Your task to perform on an android device: find snoozed emails in the gmail app Image 0: 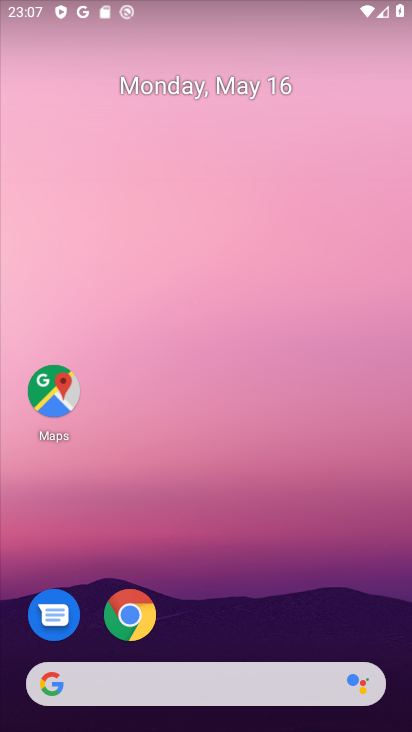
Step 0: drag from (174, 665) to (156, 149)
Your task to perform on an android device: find snoozed emails in the gmail app Image 1: 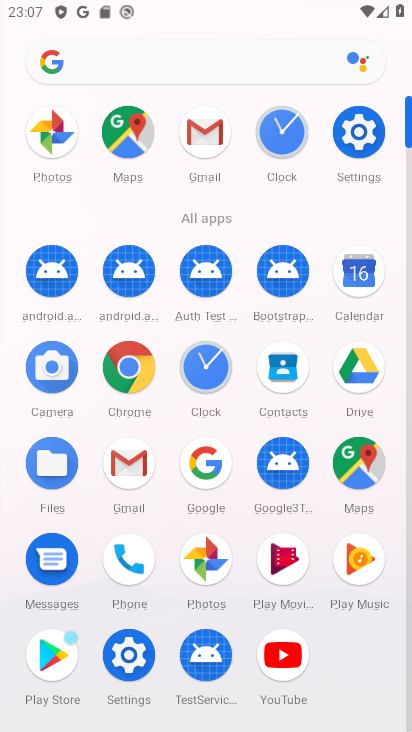
Step 1: click (133, 468)
Your task to perform on an android device: find snoozed emails in the gmail app Image 2: 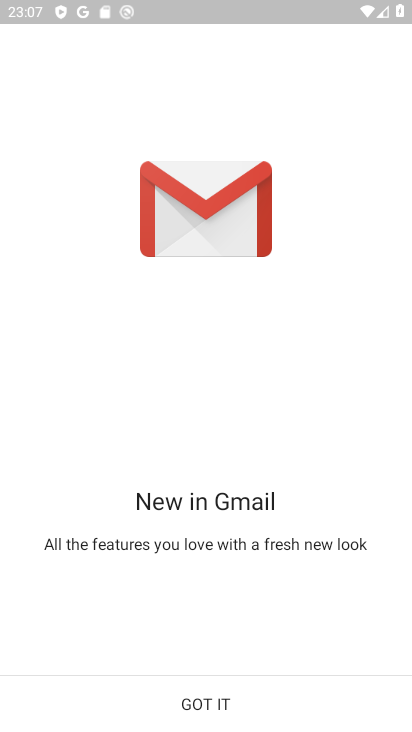
Step 2: click (210, 709)
Your task to perform on an android device: find snoozed emails in the gmail app Image 3: 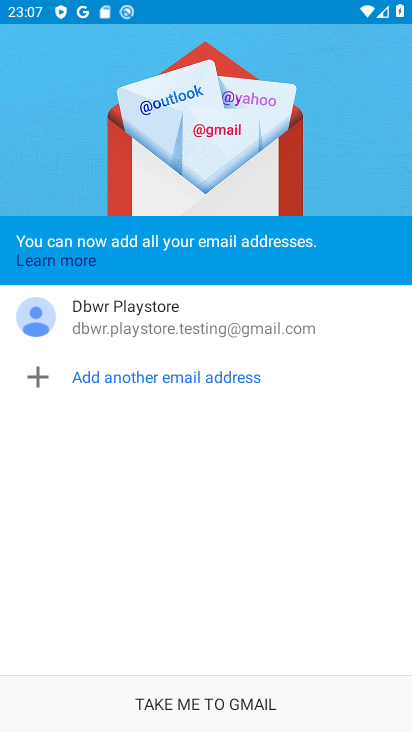
Step 3: click (222, 704)
Your task to perform on an android device: find snoozed emails in the gmail app Image 4: 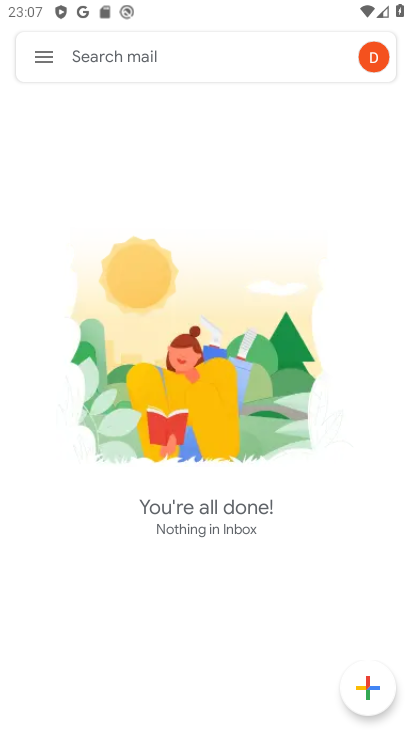
Step 4: click (38, 43)
Your task to perform on an android device: find snoozed emails in the gmail app Image 5: 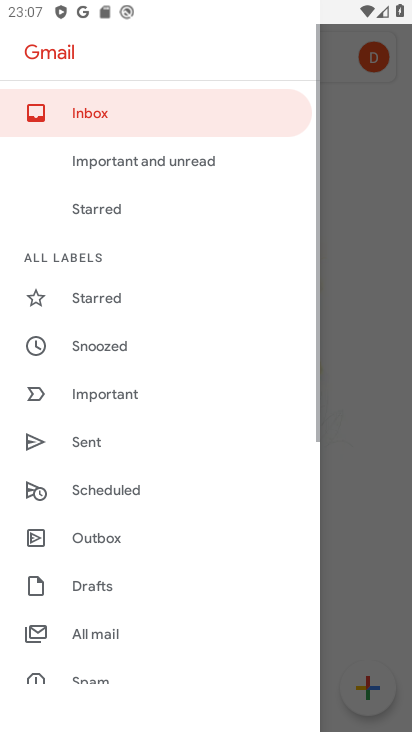
Step 5: click (79, 364)
Your task to perform on an android device: find snoozed emails in the gmail app Image 6: 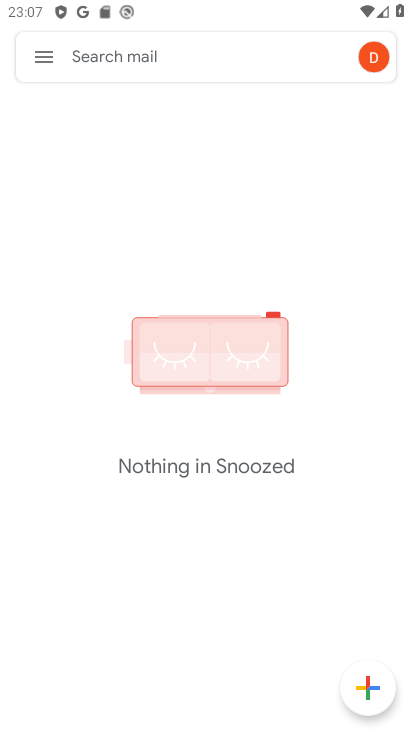
Step 6: task complete